Your task to perform on an android device: Open calendar and show me the second week of next month Image 0: 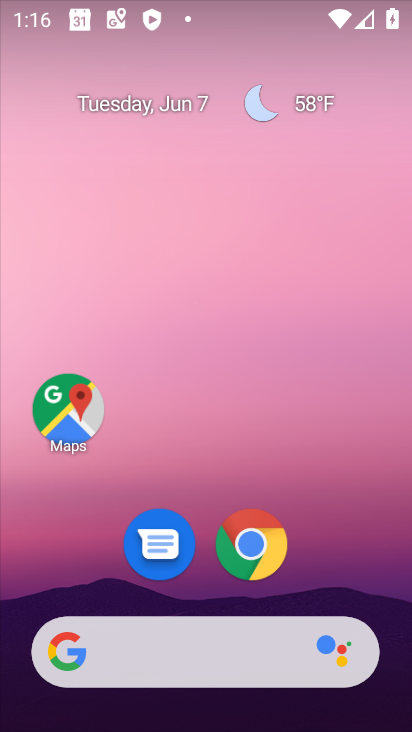
Step 0: drag from (135, 657) to (154, 116)
Your task to perform on an android device: Open calendar and show me the second week of next month Image 1: 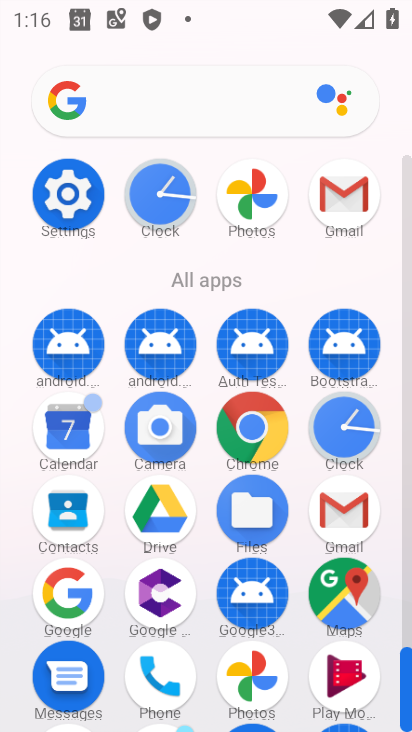
Step 1: click (72, 431)
Your task to perform on an android device: Open calendar and show me the second week of next month Image 2: 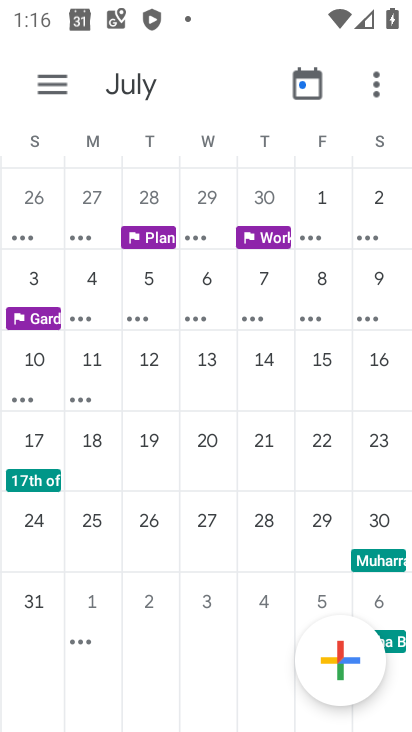
Step 2: click (38, 83)
Your task to perform on an android device: Open calendar and show me the second week of next month Image 3: 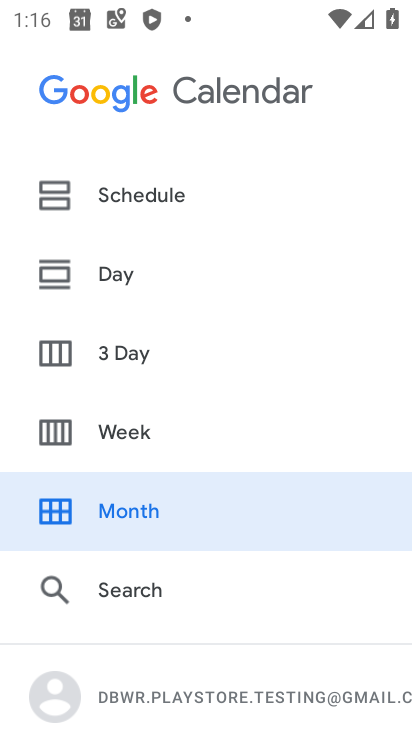
Step 3: click (139, 489)
Your task to perform on an android device: Open calendar and show me the second week of next month Image 4: 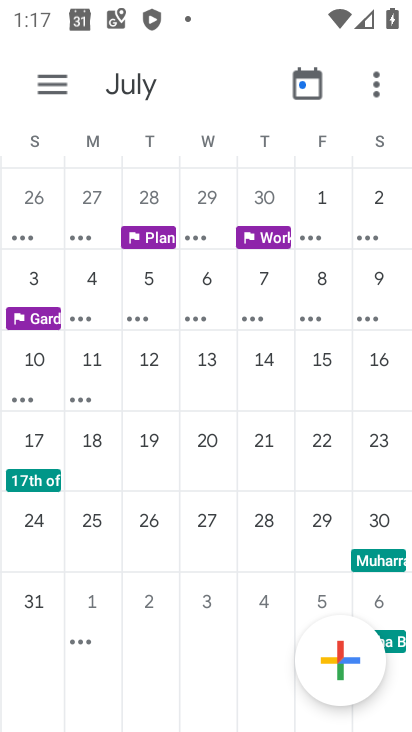
Step 4: task complete